Your task to perform on an android device: Open Google Maps and go to "Timeline" Image 0: 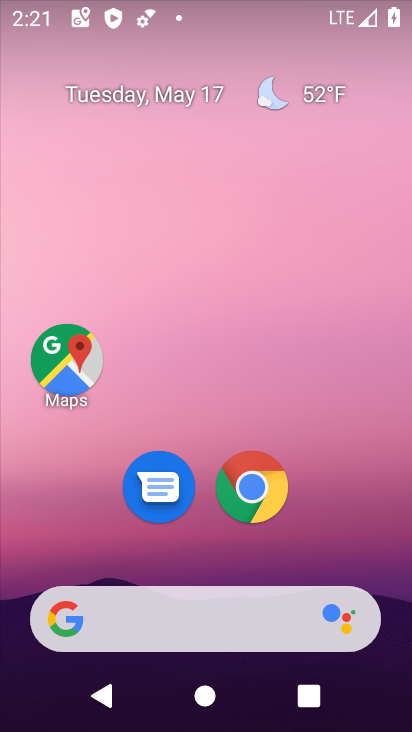
Step 0: drag from (397, 664) to (391, 304)
Your task to perform on an android device: Open Google Maps and go to "Timeline" Image 1: 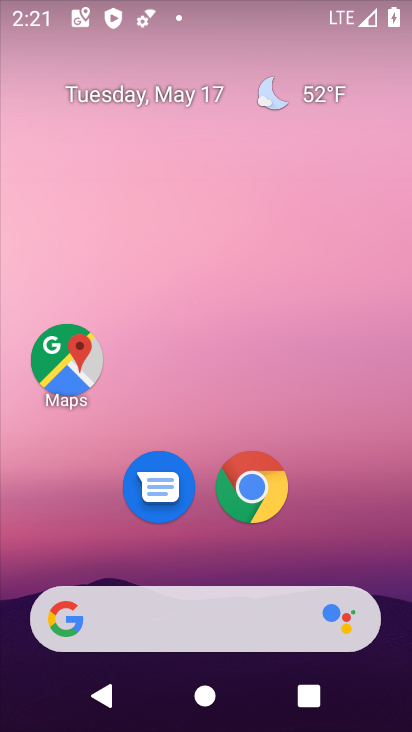
Step 1: drag from (398, 647) to (375, 328)
Your task to perform on an android device: Open Google Maps and go to "Timeline" Image 2: 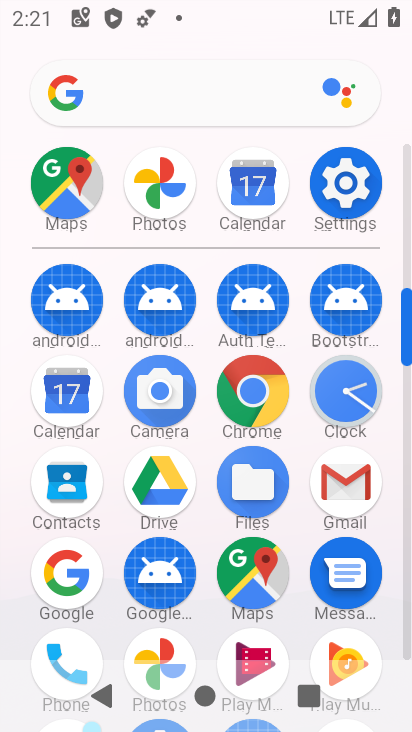
Step 2: click (247, 557)
Your task to perform on an android device: Open Google Maps and go to "Timeline" Image 3: 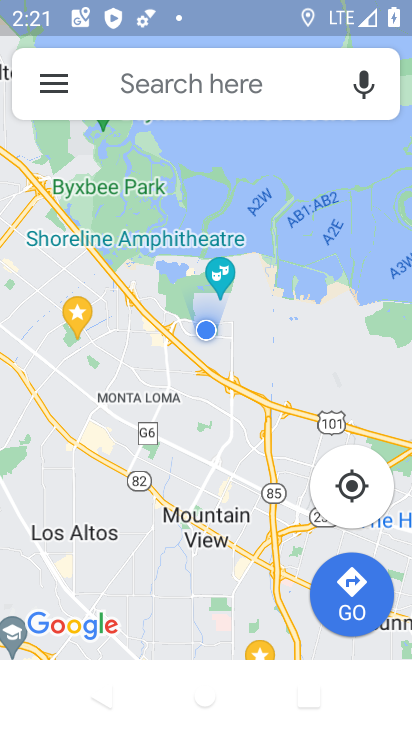
Step 3: click (51, 76)
Your task to perform on an android device: Open Google Maps and go to "Timeline" Image 4: 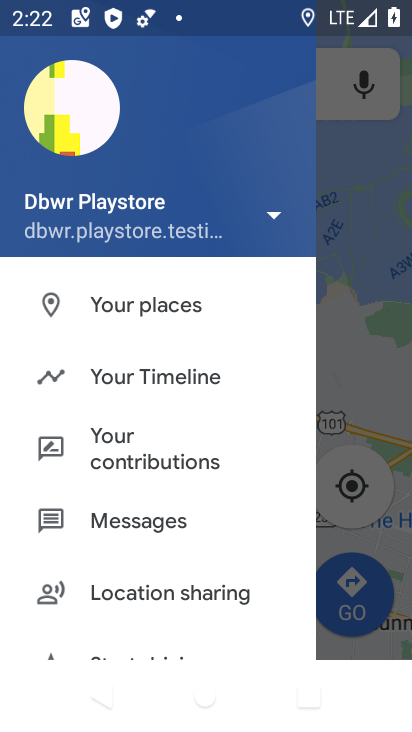
Step 4: click (129, 365)
Your task to perform on an android device: Open Google Maps and go to "Timeline" Image 5: 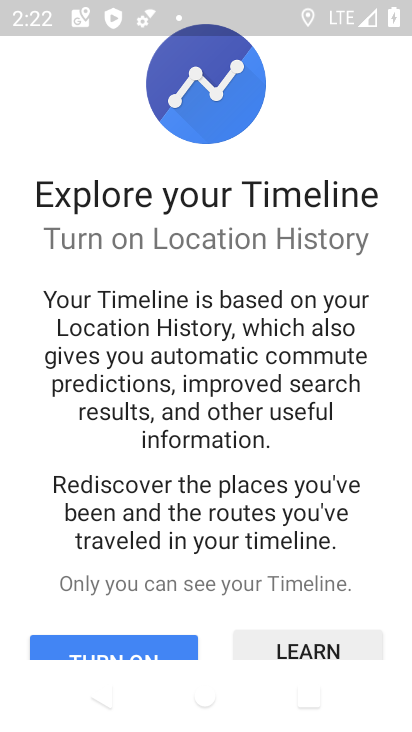
Step 5: task complete